Your task to perform on an android device: Open wifi settings Image 0: 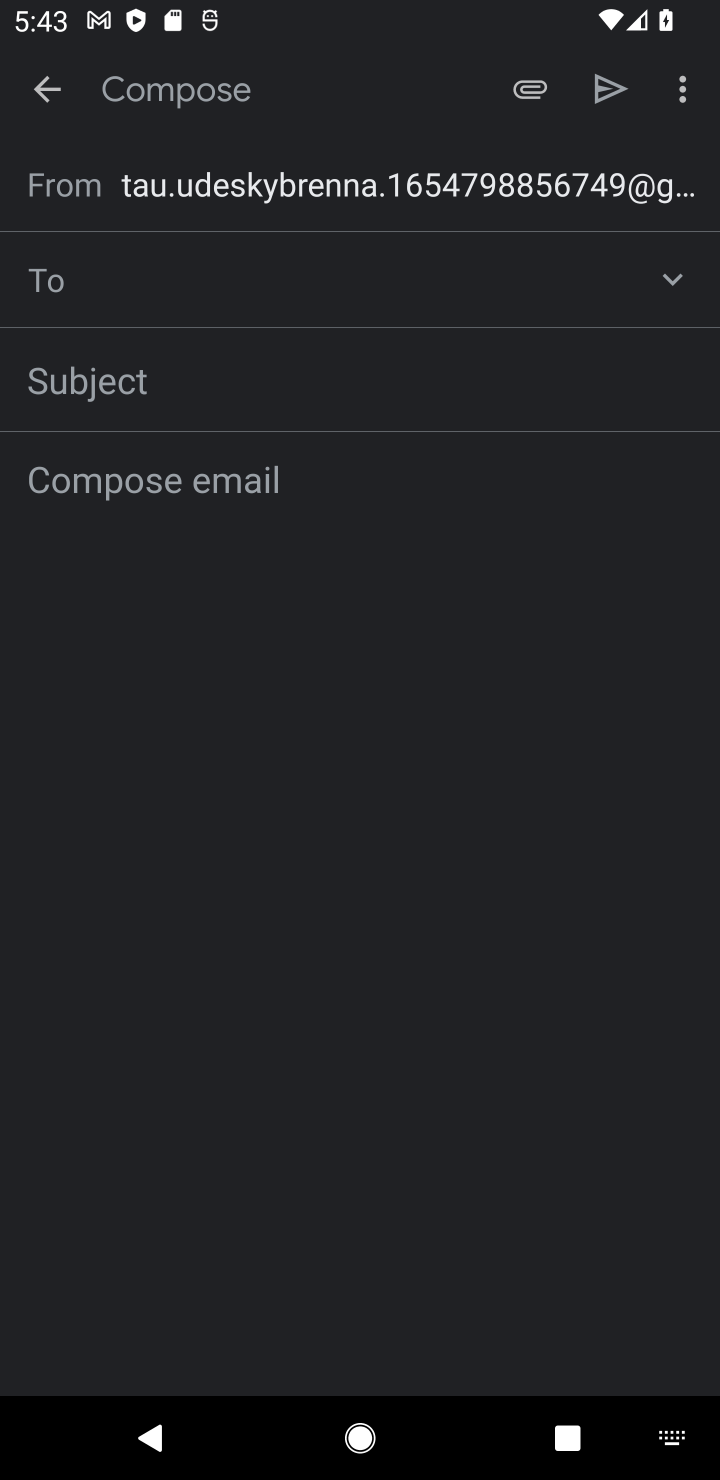
Step 0: click (20, 97)
Your task to perform on an android device: Open wifi settings Image 1: 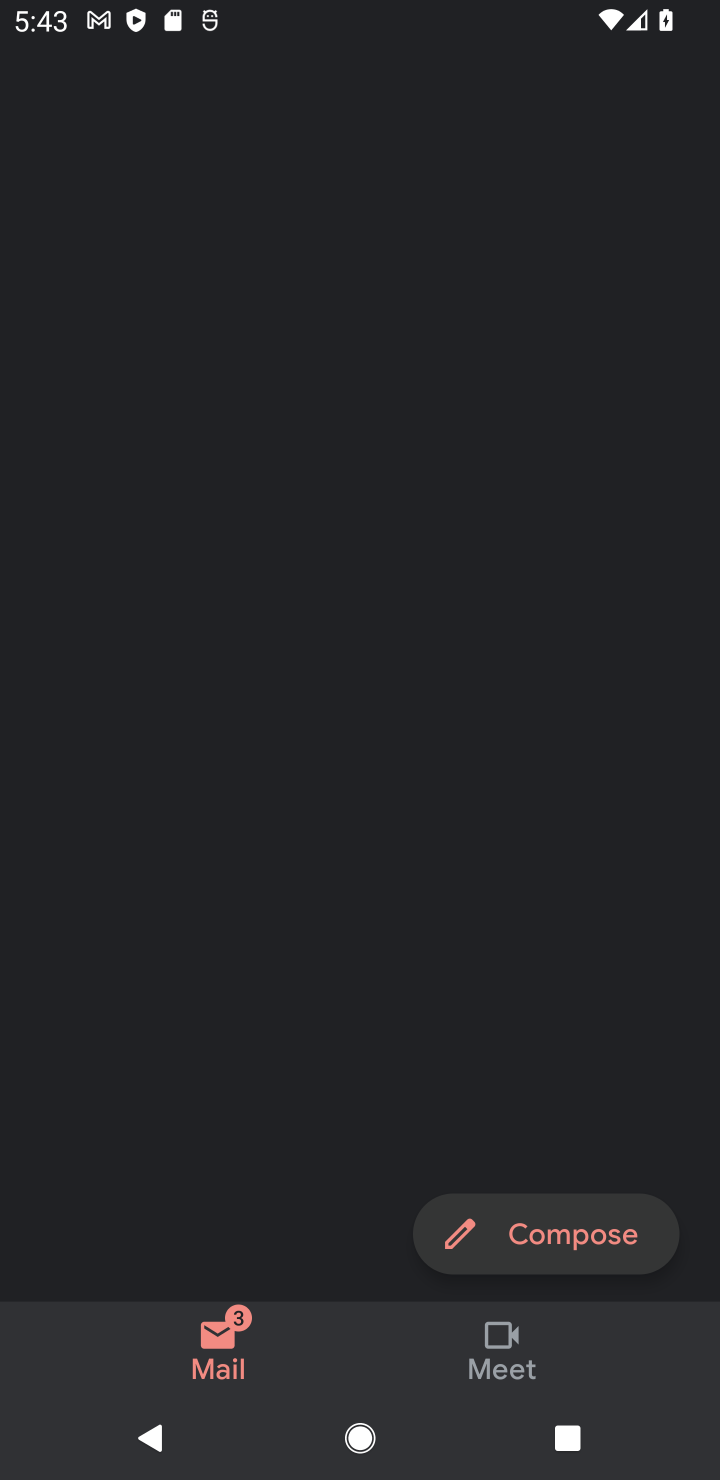
Step 1: task complete